Your task to perform on an android device: change the upload size in google photos Image 0: 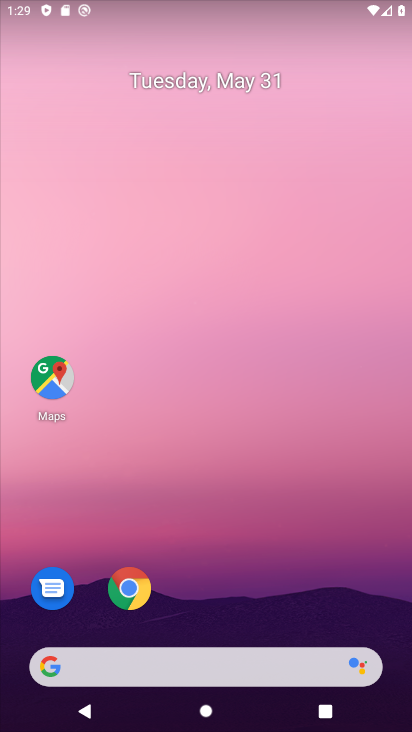
Step 0: drag from (246, 604) to (157, 167)
Your task to perform on an android device: change the upload size in google photos Image 1: 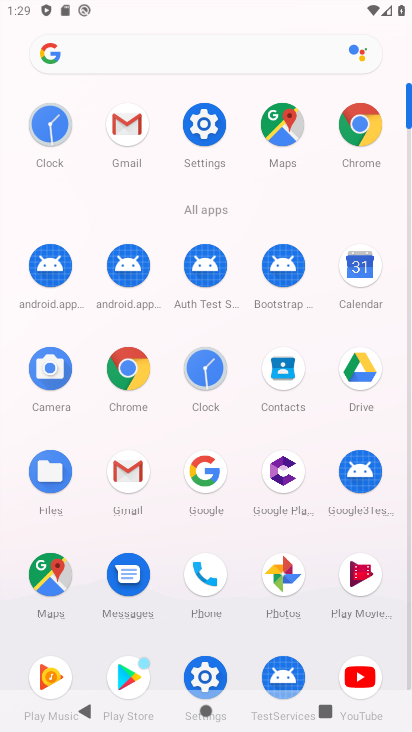
Step 1: click (295, 567)
Your task to perform on an android device: change the upload size in google photos Image 2: 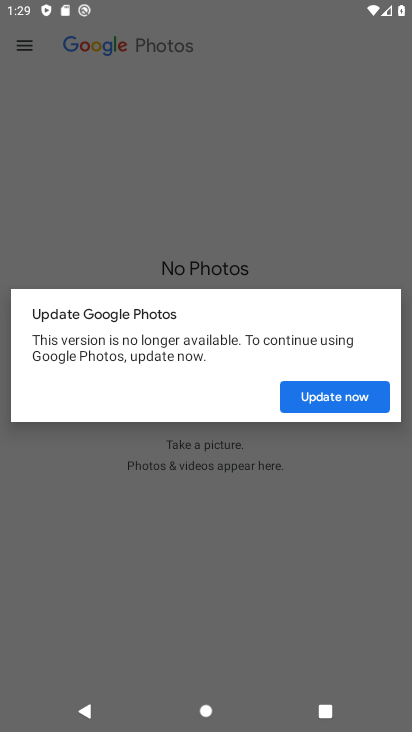
Step 2: click (348, 396)
Your task to perform on an android device: change the upload size in google photos Image 3: 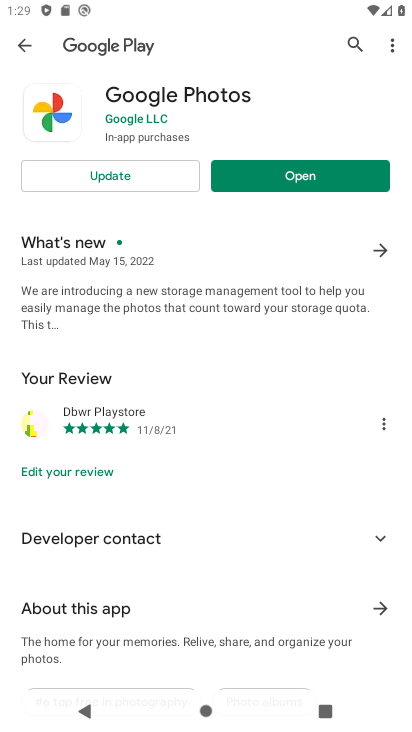
Step 3: click (135, 176)
Your task to perform on an android device: change the upload size in google photos Image 4: 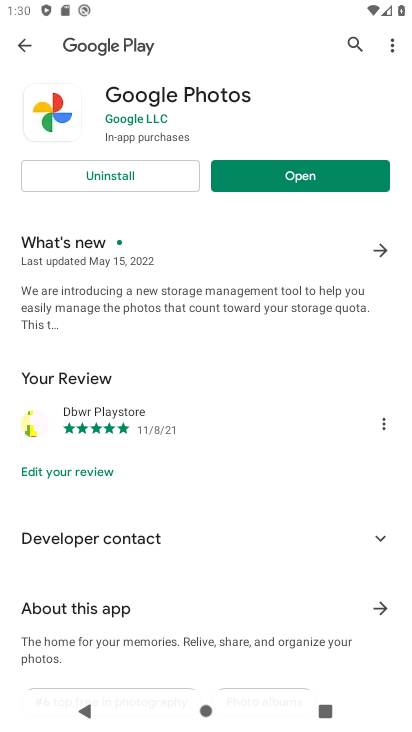
Step 4: click (297, 174)
Your task to perform on an android device: change the upload size in google photos Image 5: 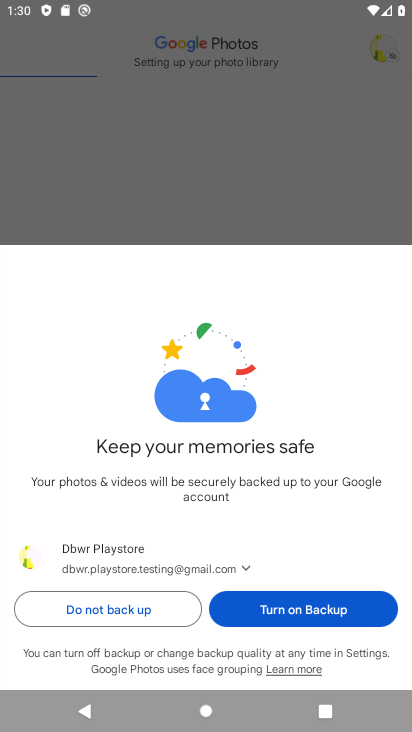
Step 5: click (273, 615)
Your task to perform on an android device: change the upload size in google photos Image 6: 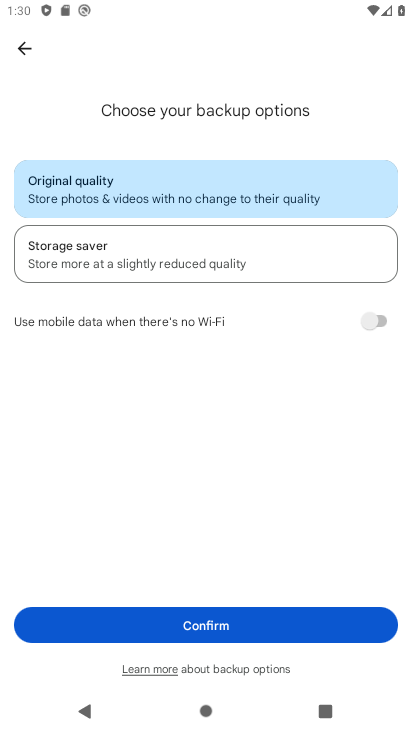
Step 6: click (220, 248)
Your task to perform on an android device: change the upload size in google photos Image 7: 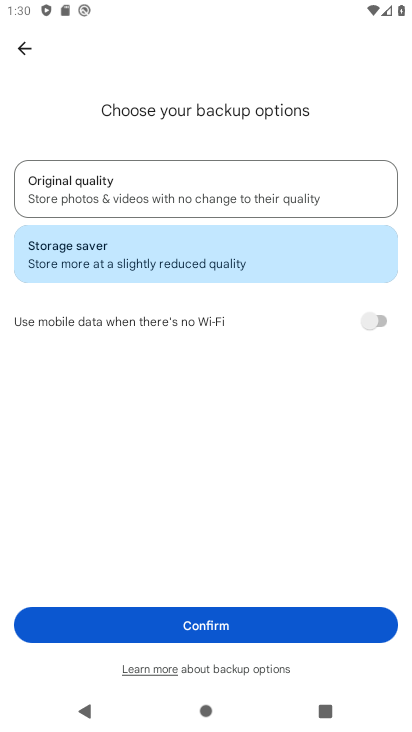
Step 7: click (253, 616)
Your task to perform on an android device: change the upload size in google photos Image 8: 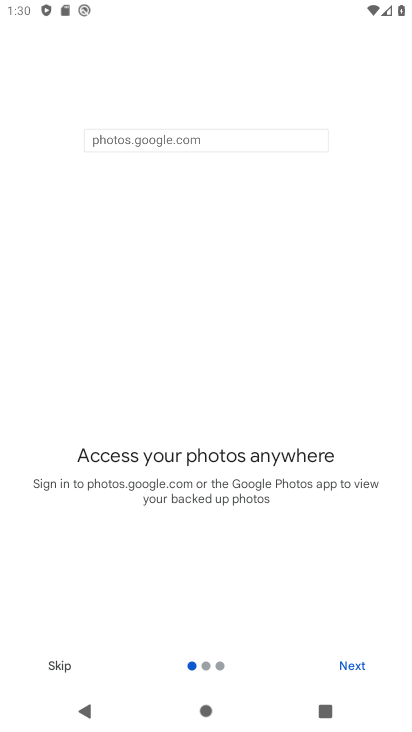
Step 8: click (48, 666)
Your task to perform on an android device: change the upload size in google photos Image 9: 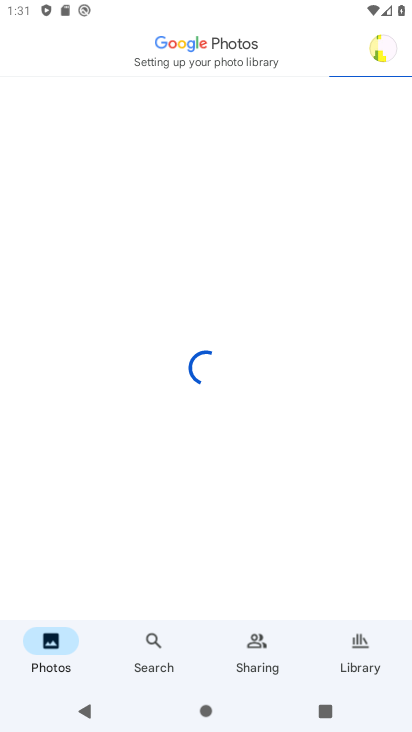
Step 9: task complete